Your task to perform on an android device: Show me recent news Image 0: 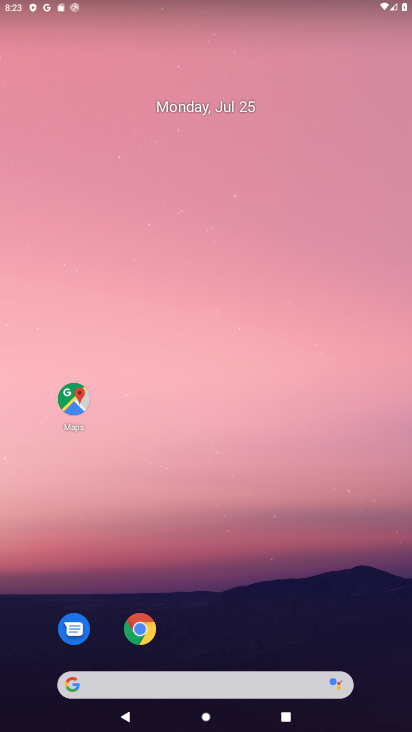
Step 0: click (138, 626)
Your task to perform on an android device: Show me recent news Image 1: 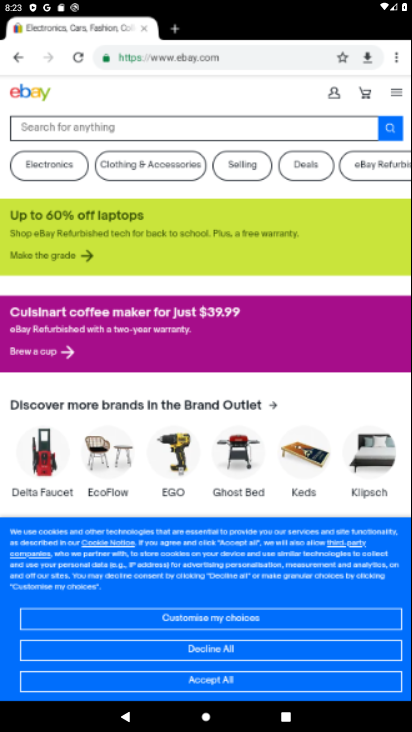
Step 1: click (138, 626)
Your task to perform on an android device: Show me recent news Image 2: 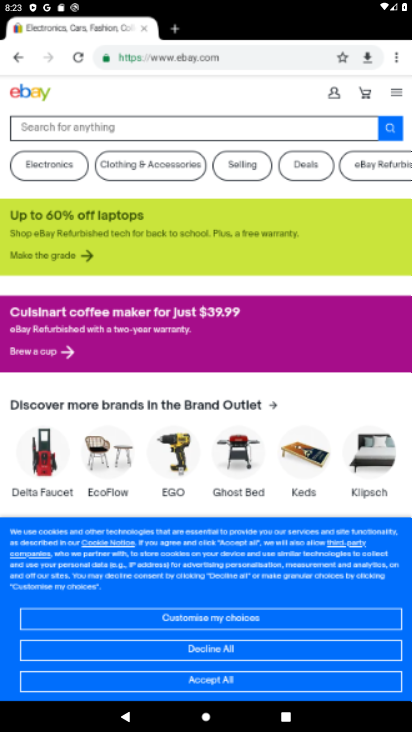
Step 2: click (138, 626)
Your task to perform on an android device: Show me recent news Image 3: 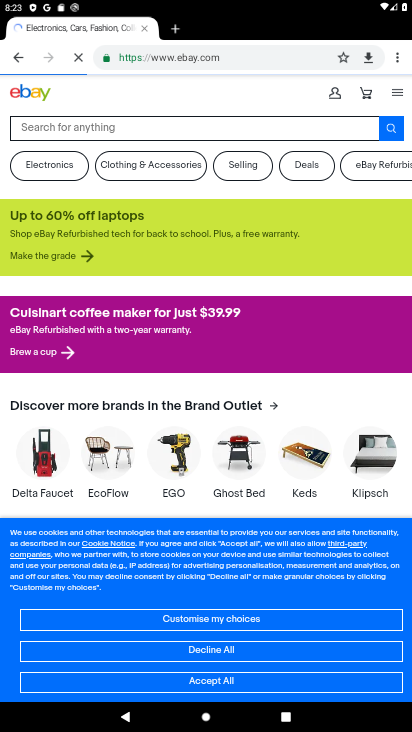
Step 3: click (180, 27)
Your task to perform on an android device: Show me recent news Image 4: 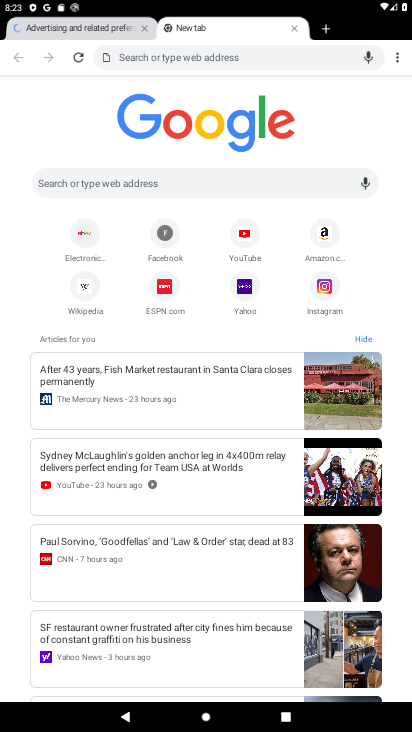
Step 4: task complete